Your task to perform on an android device: Show me productivity apps on the Play Store Image 0: 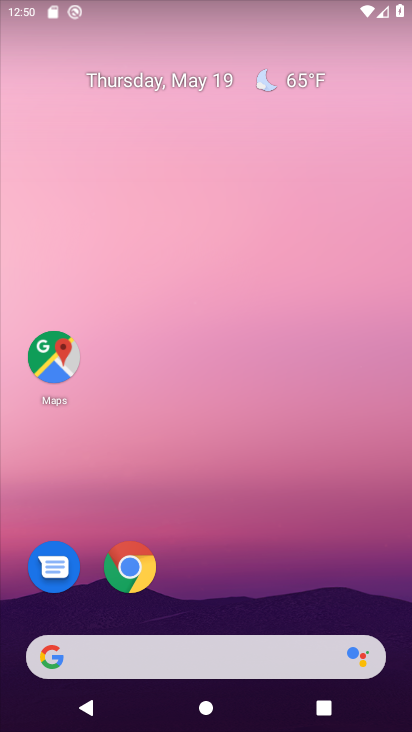
Step 0: drag from (264, 589) to (237, 231)
Your task to perform on an android device: Show me productivity apps on the Play Store Image 1: 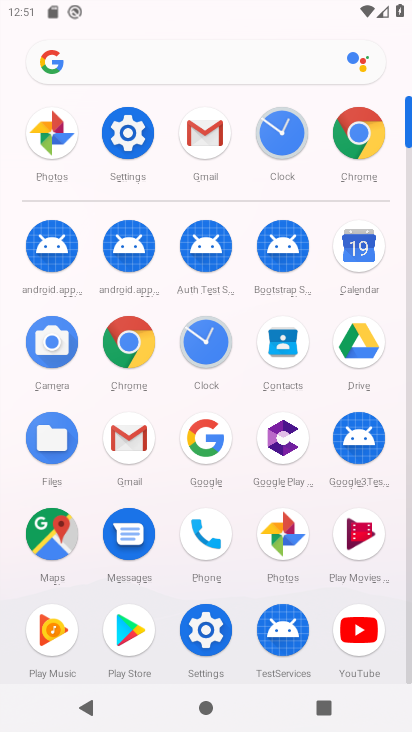
Step 1: click (129, 619)
Your task to perform on an android device: Show me productivity apps on the Play Store Image 2: 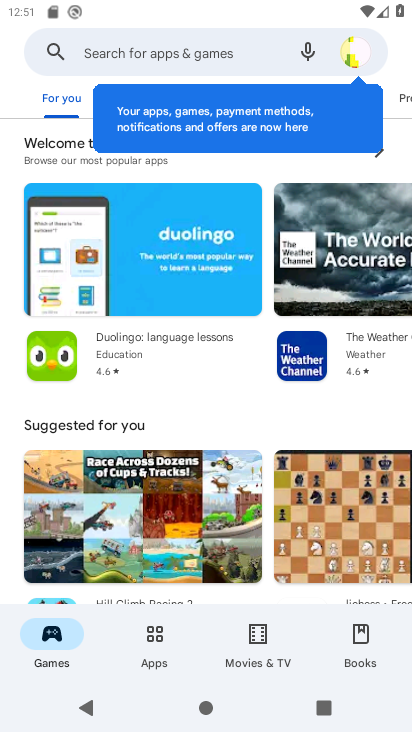
Step 2: click (190, 49)
Your task to perform on an android device: Show me productivity apps on the Play Store Image 3: 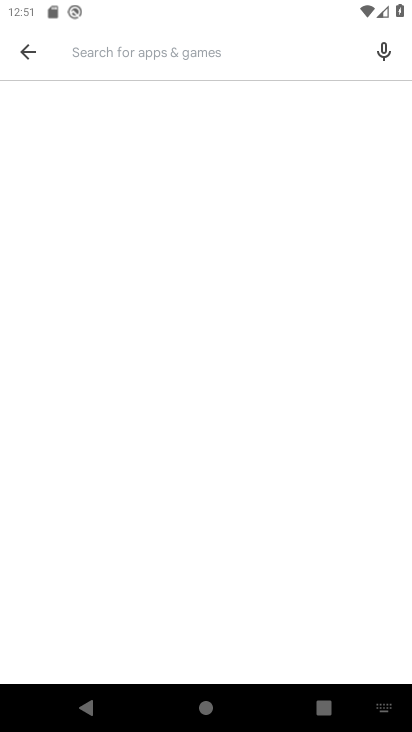
Step 3: type "productivity apps"
Your task to perform on an android device: Show me productivity apps on the Play Store Image 4: 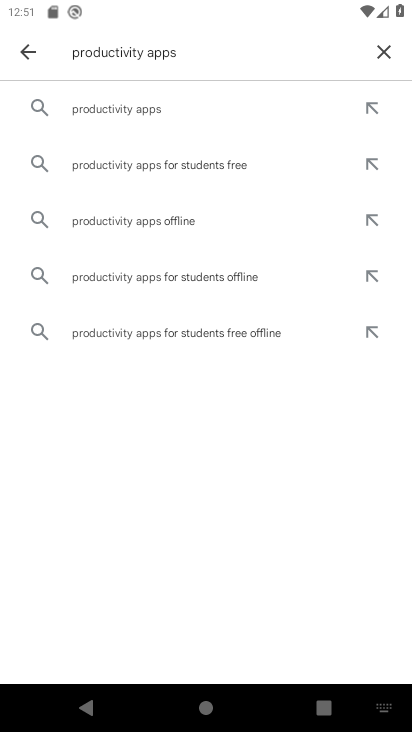
Step 4: click (144, 116)
Your task to perform on an android device: Show me productivity apps on the Play Store Image 5: 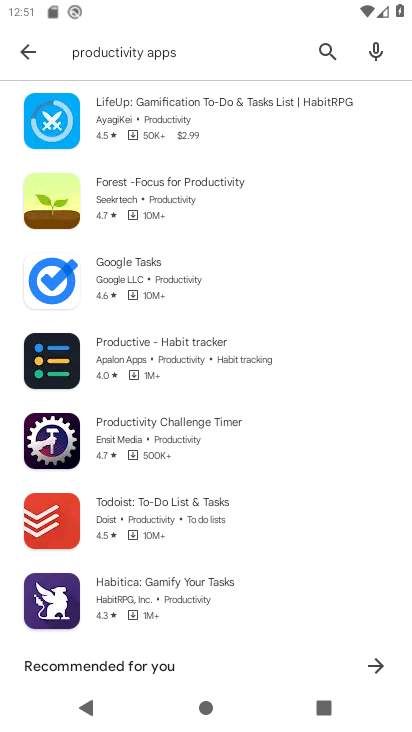
Step 5: task complete